Your task to perform on an android device: Is it going to rain tomorrow? Image 0: 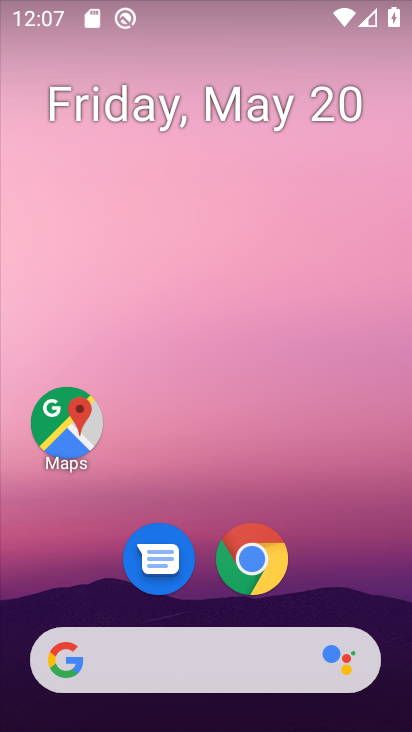
Step 0: click (266, 570)
Your task to perform on an android device: Is it going to rain tomorrow? Image 1: 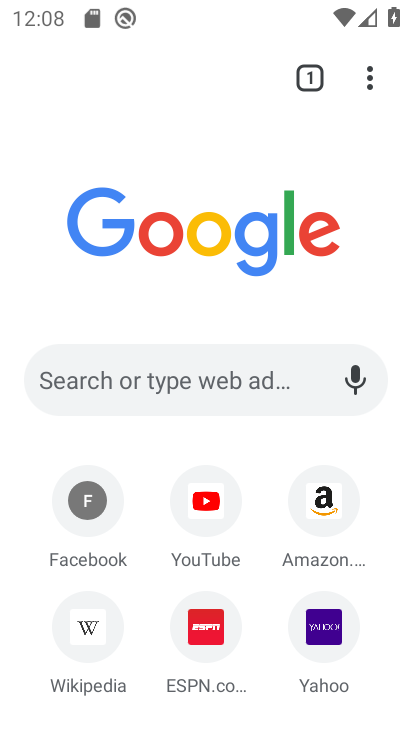
Step 1: click (274, 362)
Your task to perform on an android device: Is it going to rain tomorrow? Image 2: 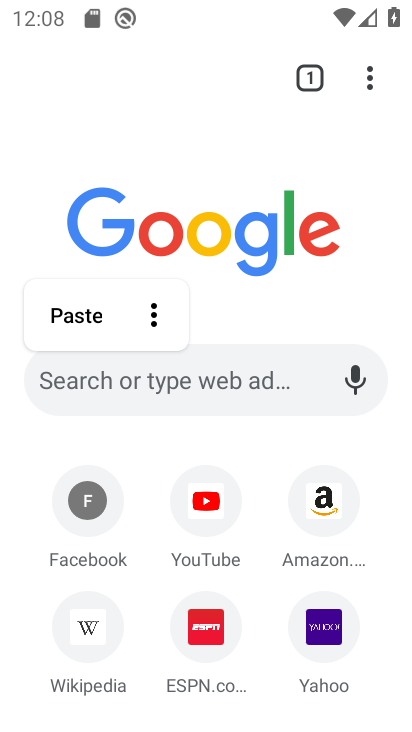
Step 2: type "Is it going to rain tomorrow?"
Your task to perform on an android device: Is it going to rain tomorrow? Image 3: 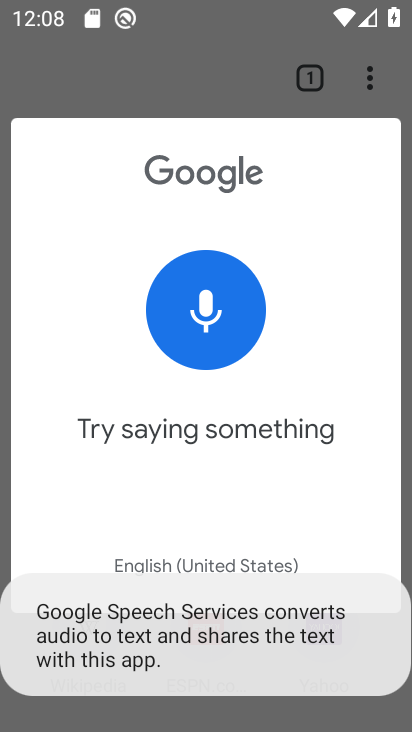
Step 3: click (271, 375)
Your task to perform on an android device: Is it going to rain tomorrow? Image 4: 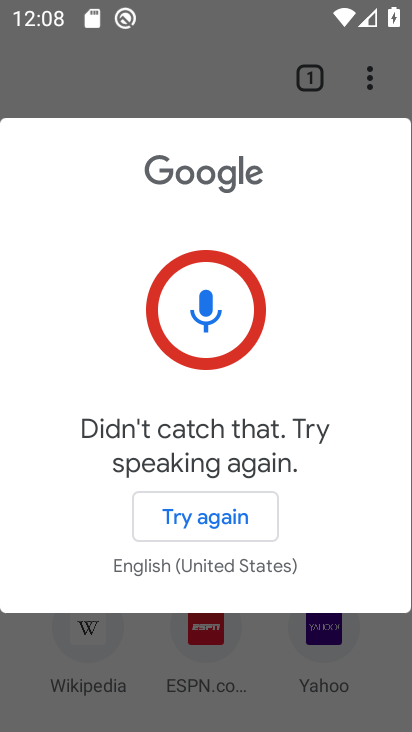
Step 4: press back button
Your task to perform on an android device: Is it going to rain tomorrow? Image 5: 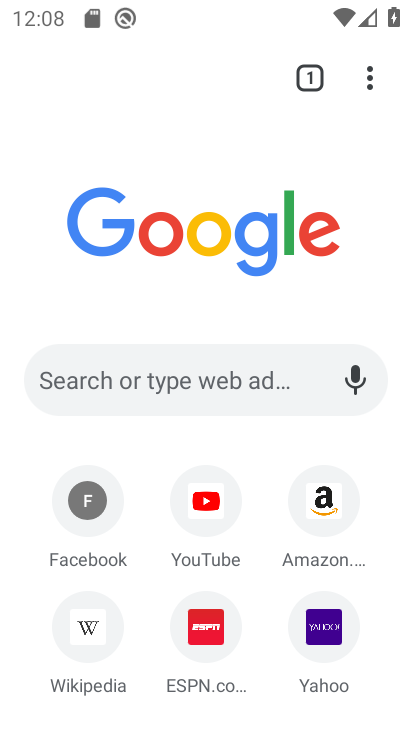
Step 5: click (295, 399)
Your task to perform on an android device: Is it going to rain tomorrow? Image 6: 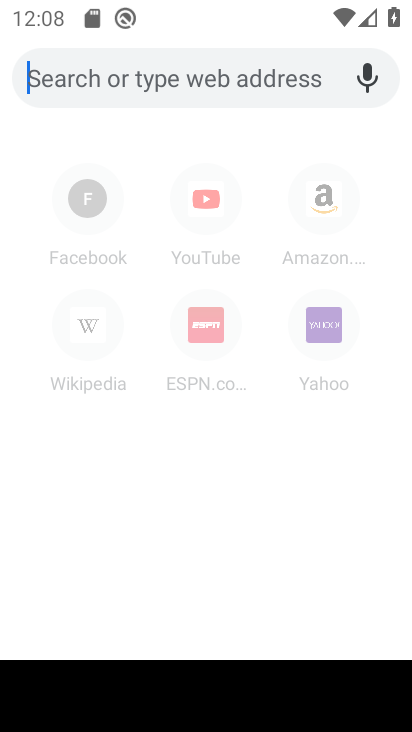
Step 6: type "Is it going to rain tomorrow?"
Your task to perform on an android device: Is it going to rain tomorrow? Image 7: 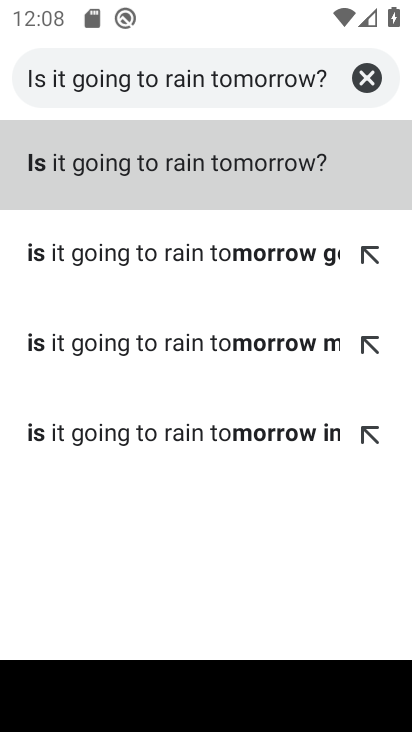
Step 7: click (310, 160)
Your task to perform on an android device: Is it going to rain tomorrow? Image 8: 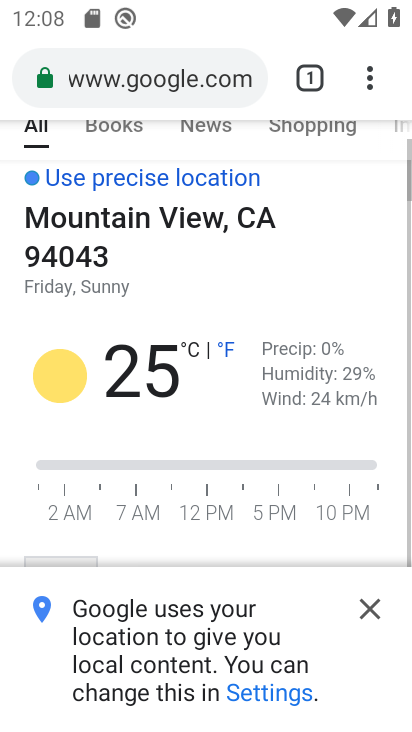
Step 8: click (370, 606)
Your task to perform on an android device: Is it going to rain tomorrow? Image 9: 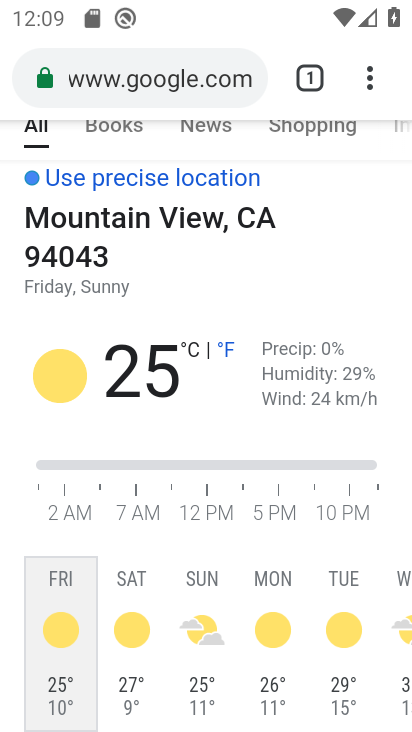
Step 9: click (139, 612)
Your task to perform on an android device: Is it going to rain tomorrow? Image 10: 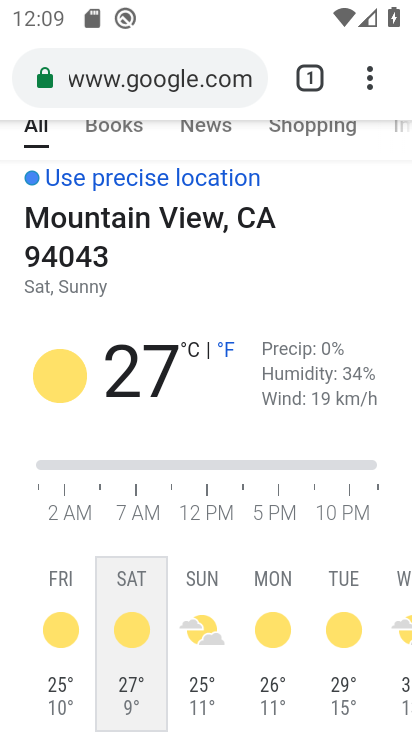
Step 10: task complete